Your task to perform on an android device: set an alarm Image 0: 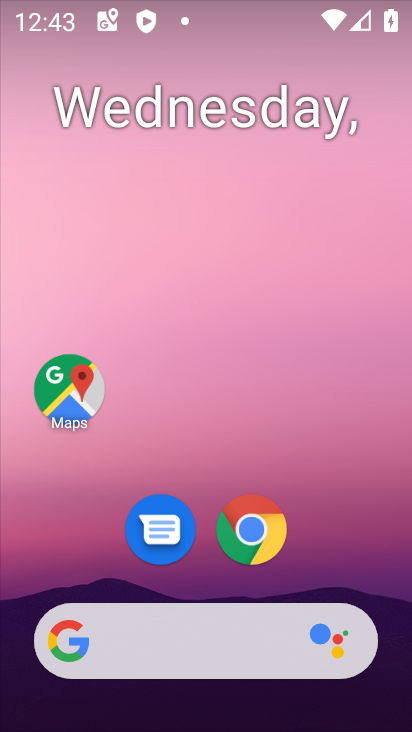
Step 0: drag from (395, 614) to (296, 105)
Your task to perform on an android device: set an alarm Image 1: 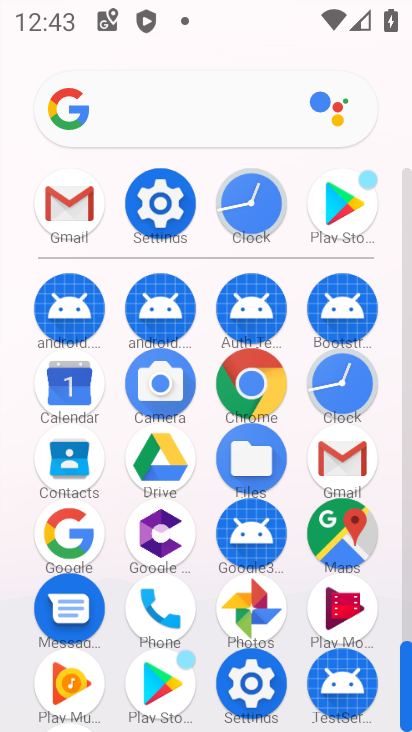
Step 1: click (338, 379)
Your task to perform on an android device: set an alarm Image 2: 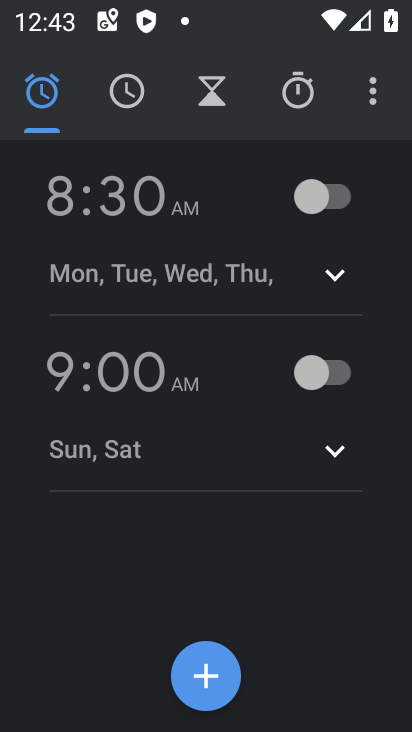
Step 2: click (81, 234)
Your task to perform on an android device: set an alarm Image 3: 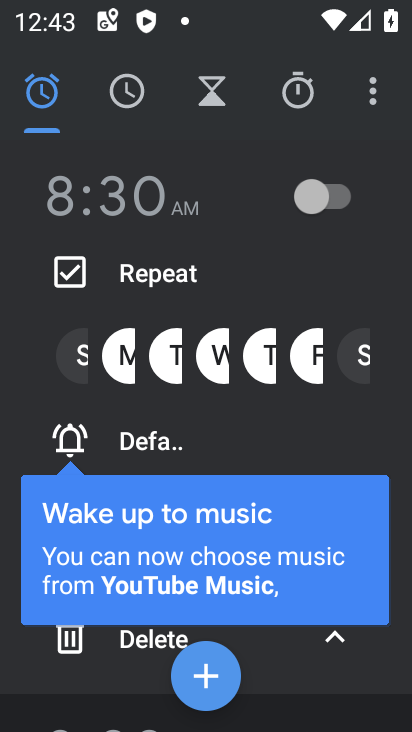
Step 3: click (363, 361)
Your task to perform on an android device: set an alarm Image 4: 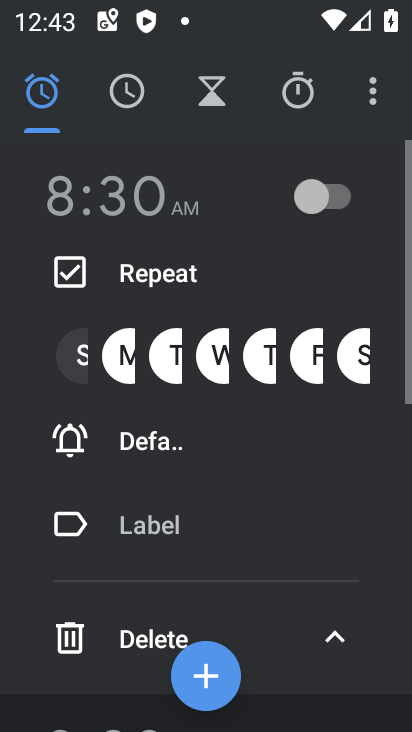
Step 4: click (96, 200)
Your task to perform on an android device: set an alarm Image 5: 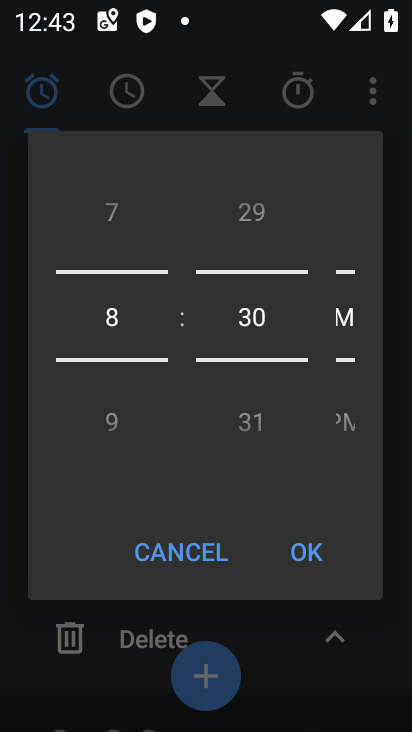
Step 5: drag from (131, 247) to (113, 412)
Your task to perform on an android device: set an alarm Image 6: 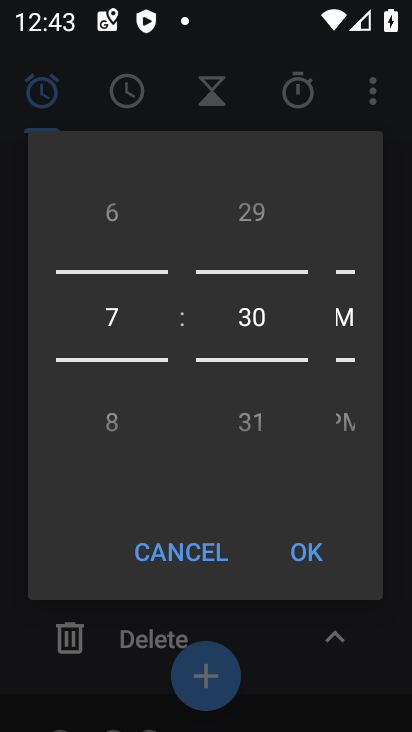
Step 6: drag from (128, 241) to (118, 406)
Your task to perform on an android device: set an alarm Image 7: 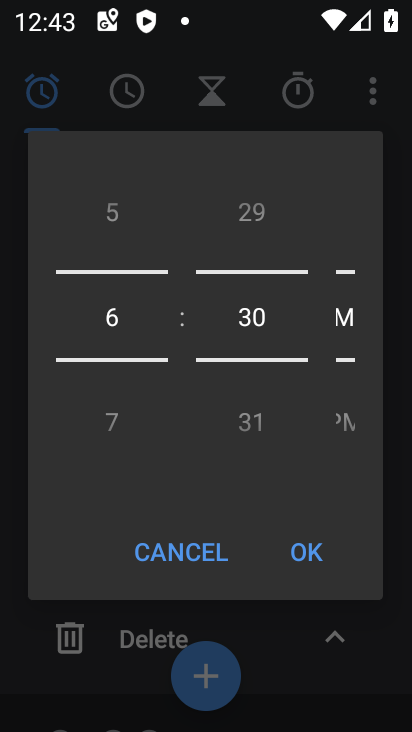
Step 7: click (309, 547)
Your task to perform on an android device: set an alarm Image 8: 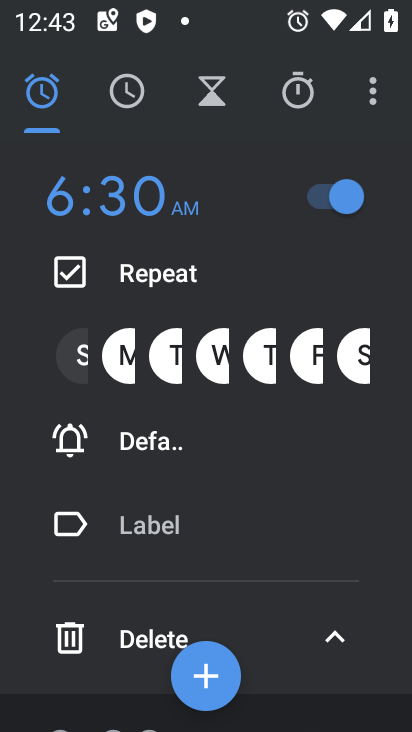
Step 8: click (344, 634)
Your task to perform on an android device: set an alarm Image 9: 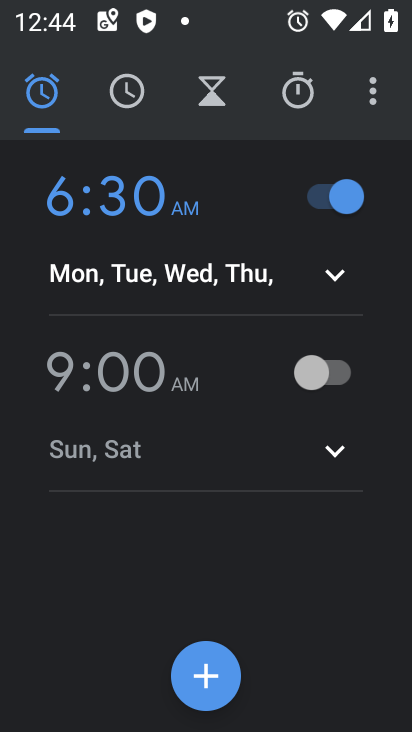
Step 9: task complete